Your task to perform on an android device: delete a single message in the gmail app Image 0: 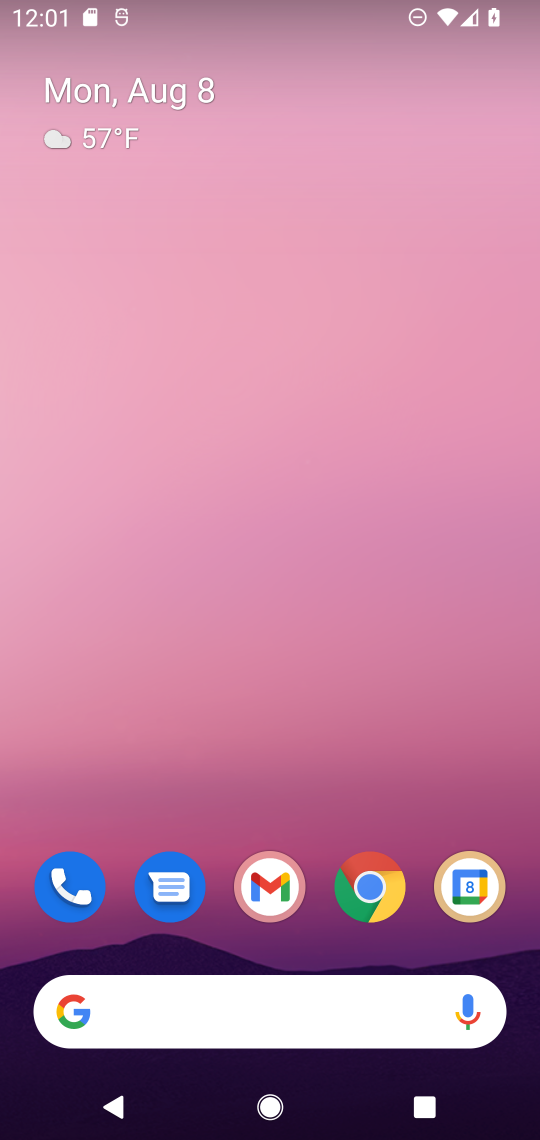
Step 0: click (274, 885)
Your task to perform on an android device: delete a single message in the gmail app Image 1: 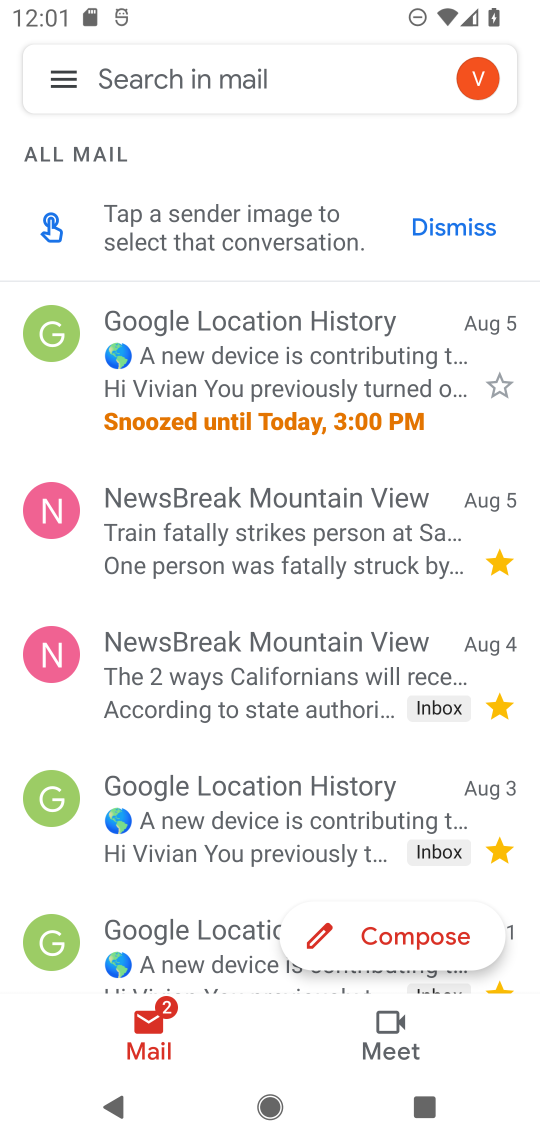
Step 1: click (253, 319)
Your task to perform on an android device: delete a single message in the gmail app Image 2: 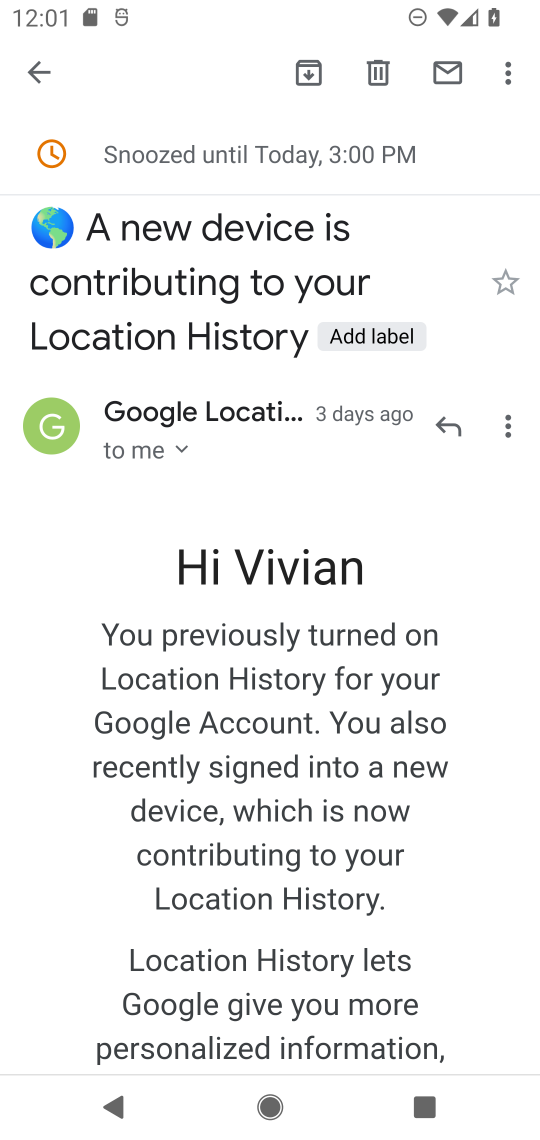
Step 2: click (377, 65)
Your task to perform on an android device: delete a single message in the gmail app Image 3: 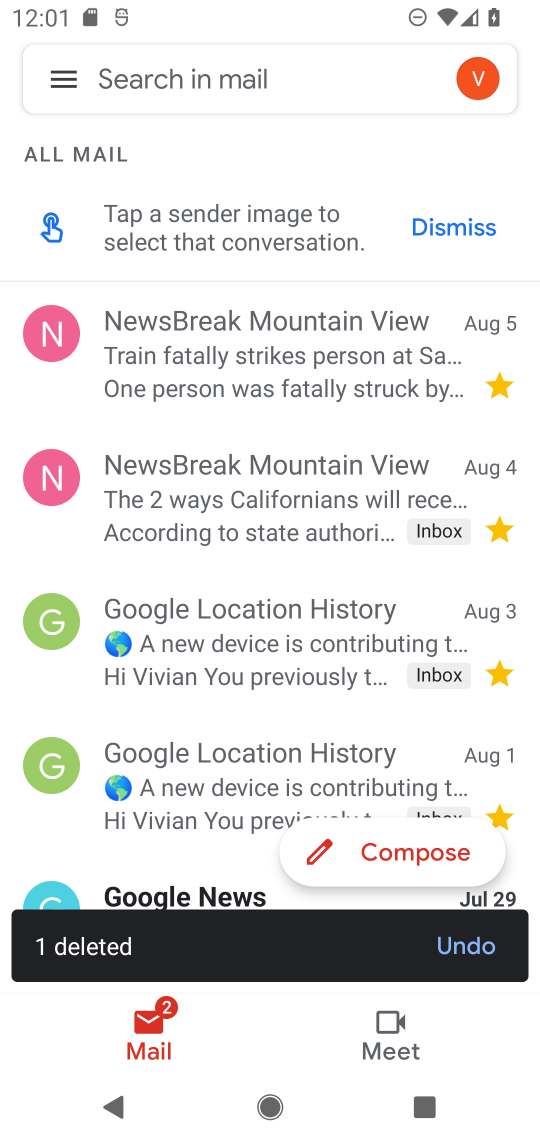
Step 3: task complete